Your task to perform on an android device: Turn on the flashlight Image 0: 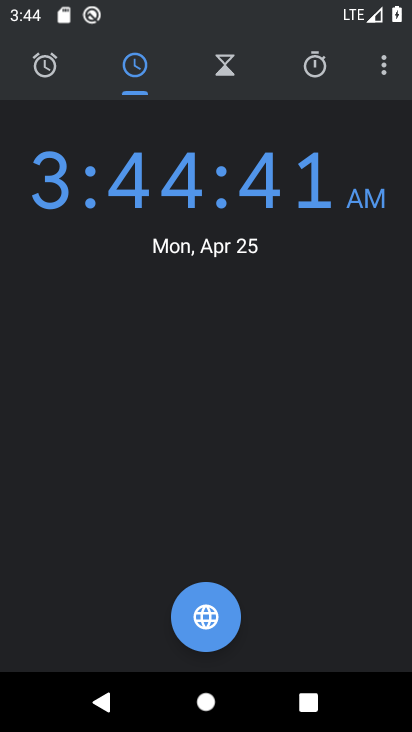
Step 0: press home button
Your task to perform on an android device: Turn on the flashlight Image 1: 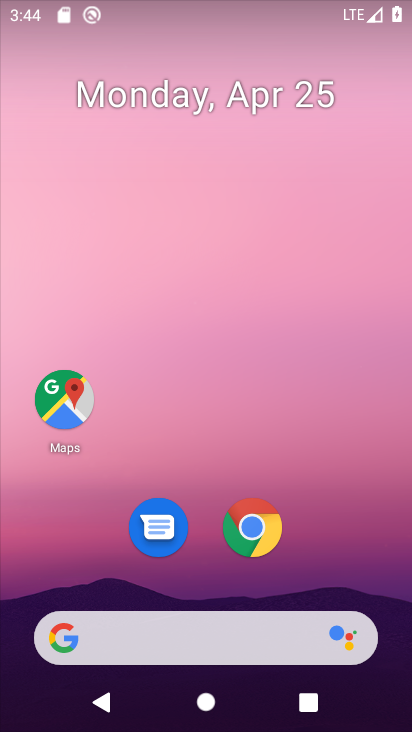
Step 1: drag from (320, 362) to (254, 70)
Your task to perform on an android device: Turn on the flashlight Image 2: 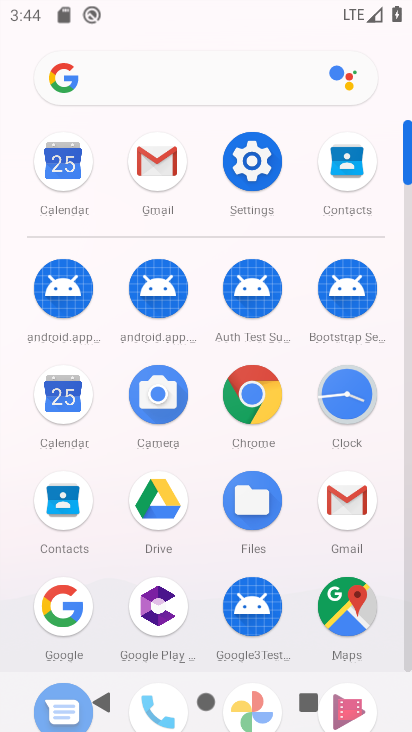
Step 2: click (405, 660)
Your task to perform on an android device: Turn on the flashlight Image 3: 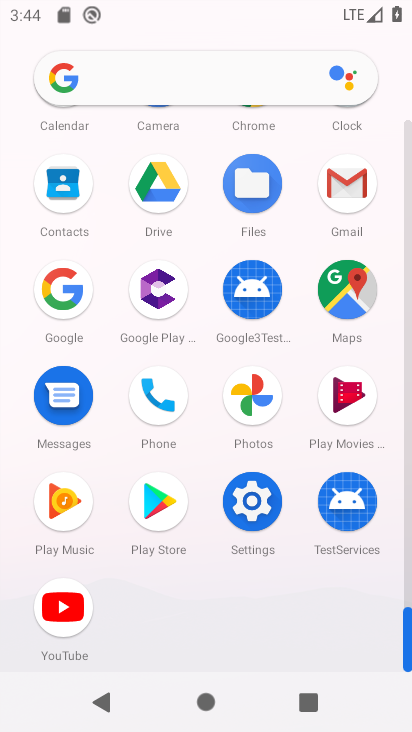
Step 3: press back button
Your task to perform on an android device: Turn on the flashlight Image 4: 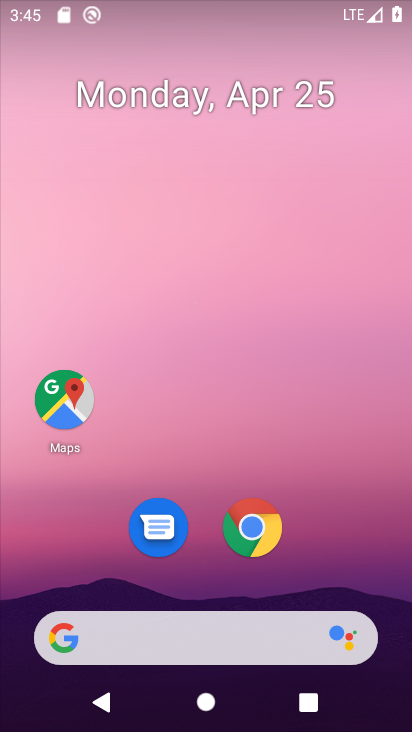
Step 4: drag from (206, 17) to (278, 429)
Your task to perform on an android device: Turn on the flashlight Image 5: 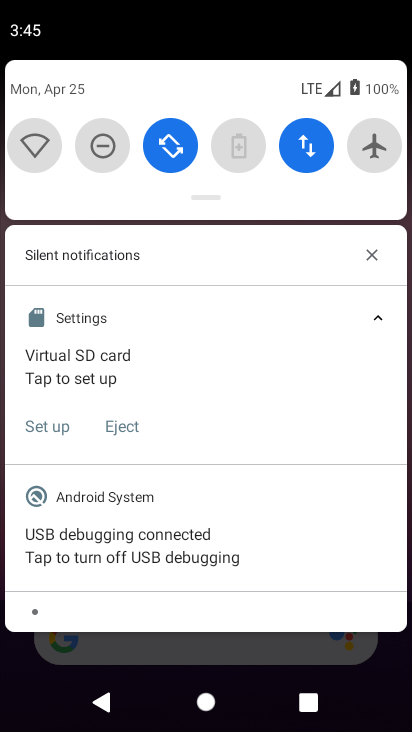
Step 5: drag from (214, 199) to (262, 505)
Your task to perform on an android device: Turn on the flashlight Image 6: 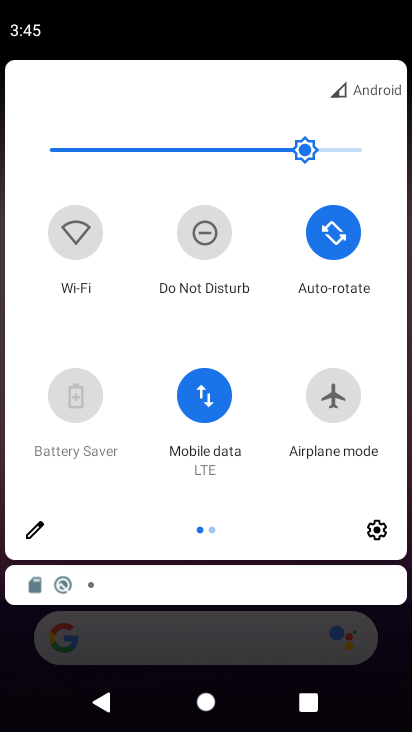
Step 6: click (31, 528)
Your task to perform on an android device: Turn on the flashlight Image 7: 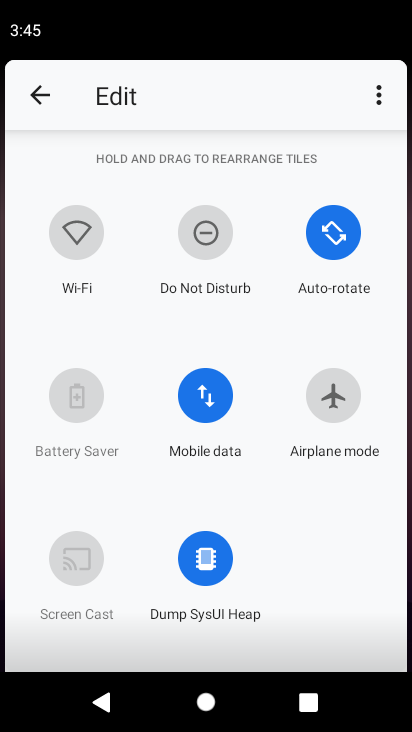
Step 7: task complete